Your task to perform on an android device: toggle show notifications on the lock screen Image 0: 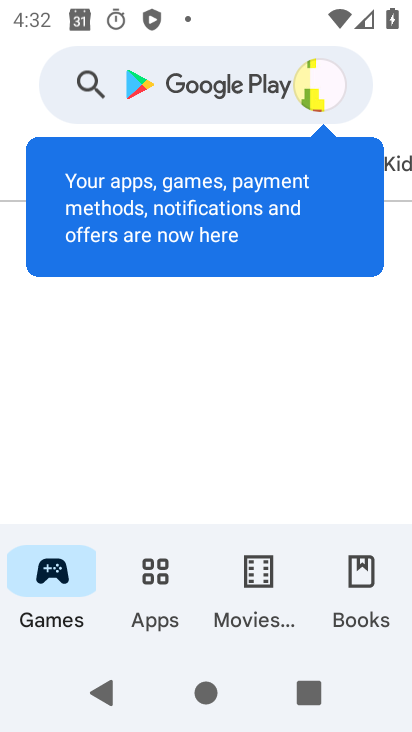
Step 0: press home button
Your task to perform on an android device: toggle show notifications on the lock screen Image 1: 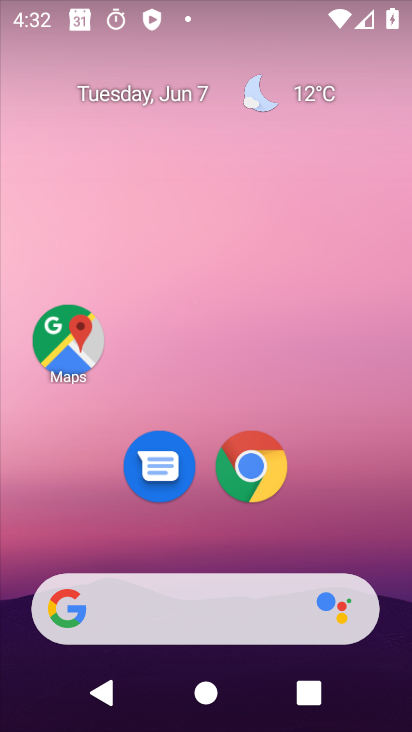
Step 1: drag from (394, 558) to (281, 135)
Your task to perform on an android device: toggle show notifications on the lock screen Image 2: 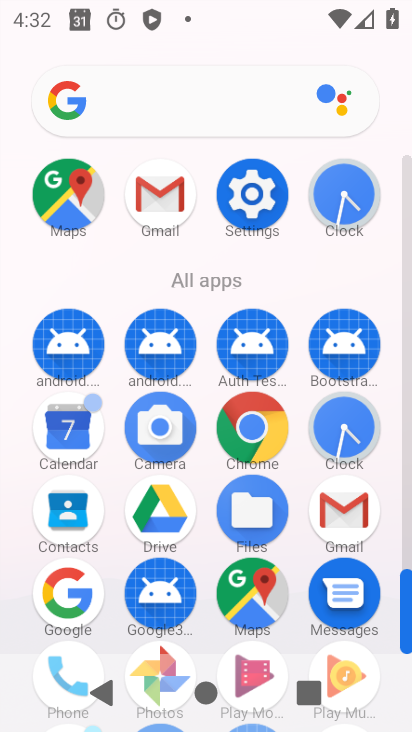
Step 2: click (265, 209)
Your task to perform on an android device: toggle show notifications on the lock screen Image 3: 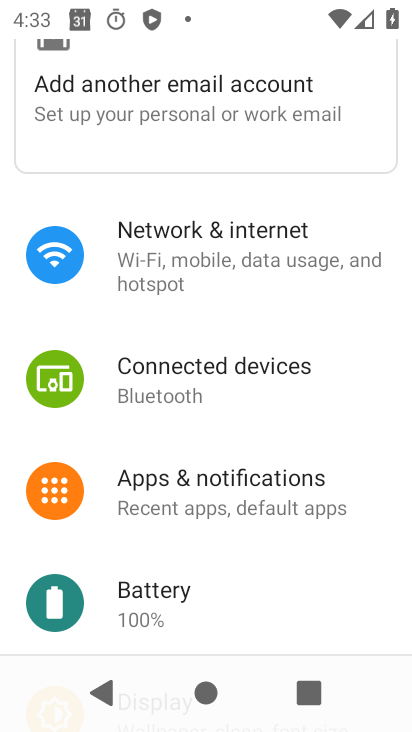
Step 3: click (273, 503)
Your task to perform on an android device: toggle show notifications on the lock screen Image 4: 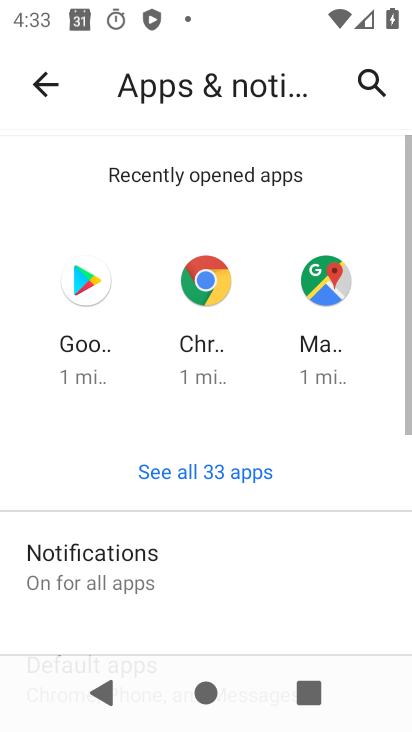
Step 4: click (250, 551)
Your task to perform on an android device: toggle show notifications on the lock screen Image 5: 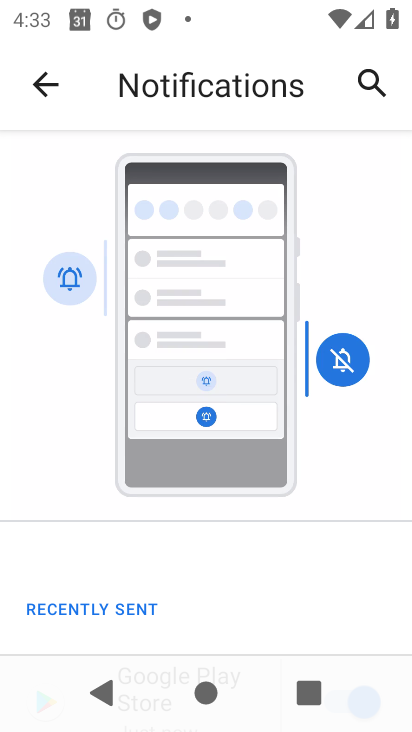
Step 5: drag from (282, 595) to (218, 23)
Your task to perform on an android device: toggle show notifications on the lock screen Image 6: 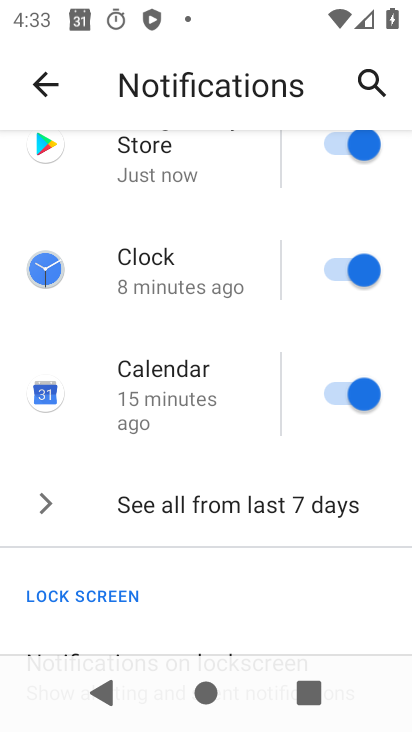
Step 6: drag from (237, 567) to (179, 41)
Your task to perform on an android device: toggle show notifications on the lock screen Image 7: 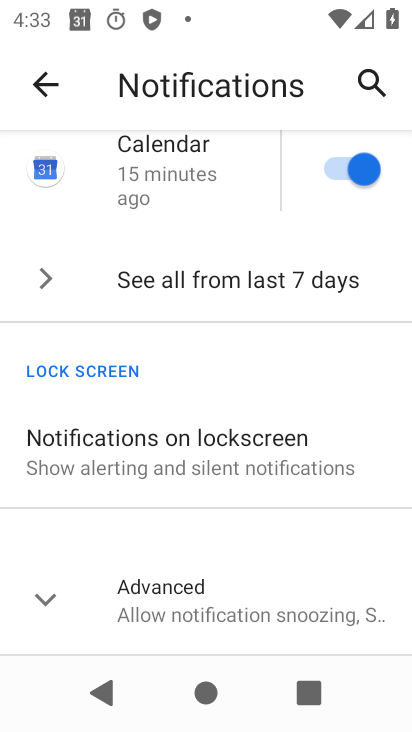
Step 7: click (289, 449)
Your task to perform on an android device: toggle show notifications on the lock screen Image 8: 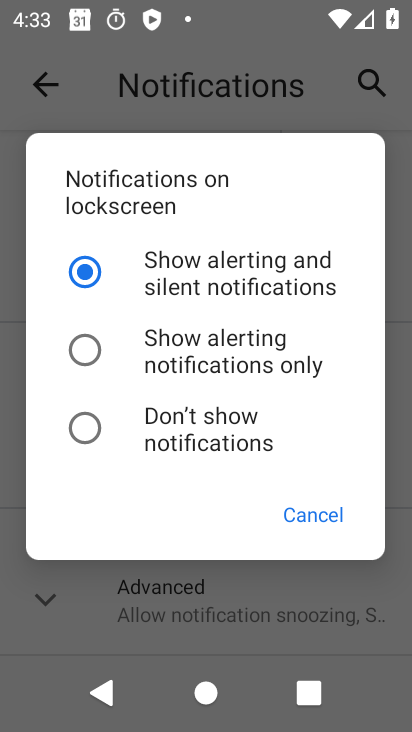
Step 8: click (260, 341)
Your task to perform on an android device: toggle show notifications on the lock screen Image 9: 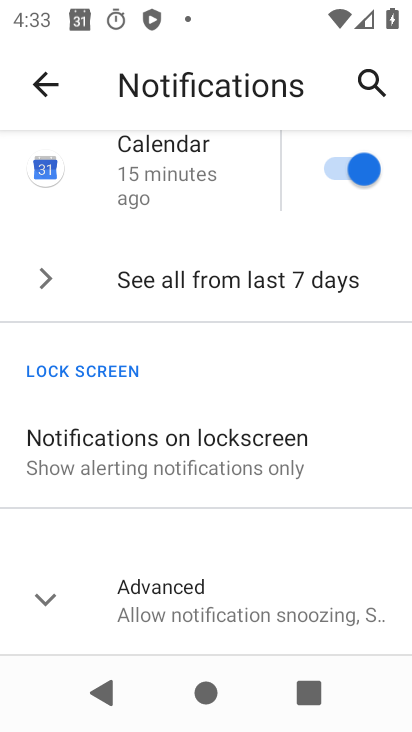
Step 9: task complete